Your task to perform on an android device: turn on the 12-hour format for clock Image 0: 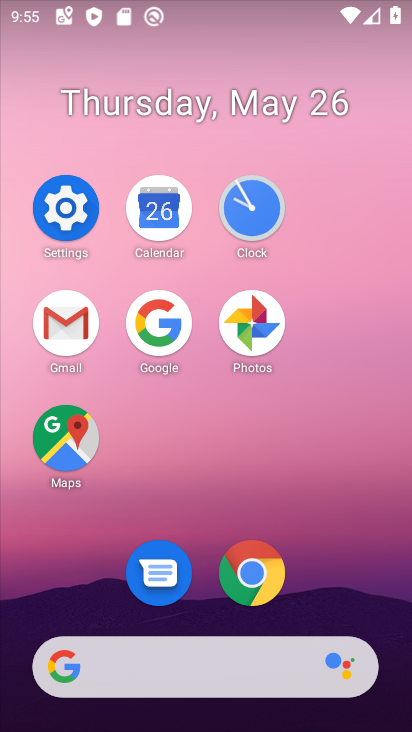
Step 0: click (234, 205)
Your task to perform on an android device: turn on the 12-hour format for clock Image 1: 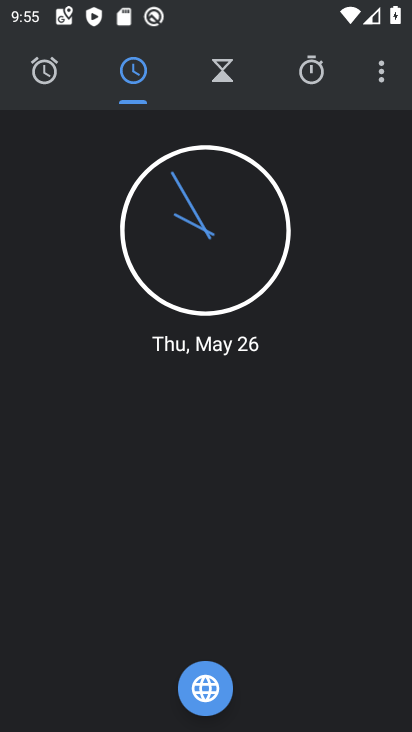
Step 1: click (392, 70)
Your task to perform on an android device: turn on the 12-hour format for clock Image 2: 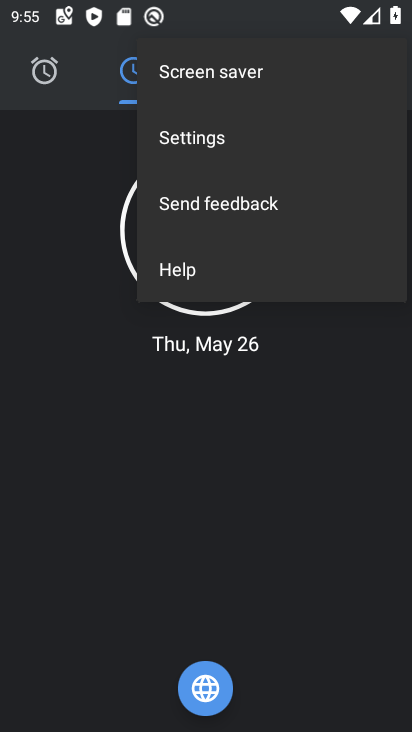
Step 2: click (229, 139)
Your task to perform on an android device: turn on the 12-hour format for clock Image 3: 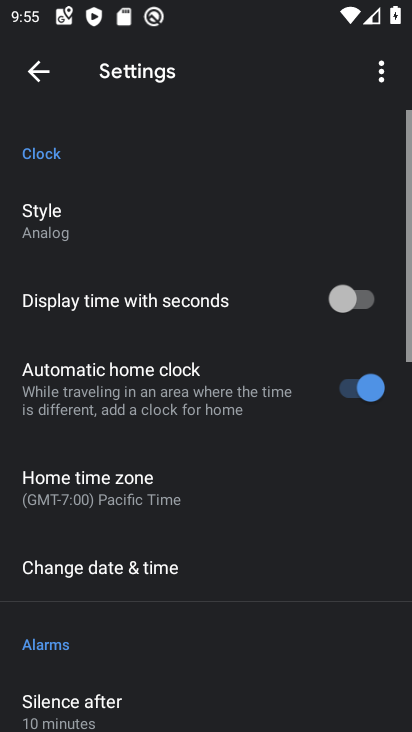
Step 3: click (137, 585)
Your task to perform on an android device: turn on the 12-hour format for clock Image 4: 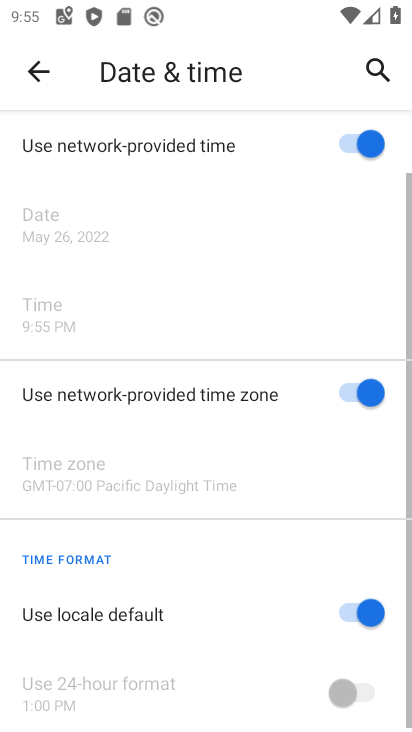
Step 4: task complete